Your task to perform on an android device: turn vacation reply on in the gmail app Image 0: 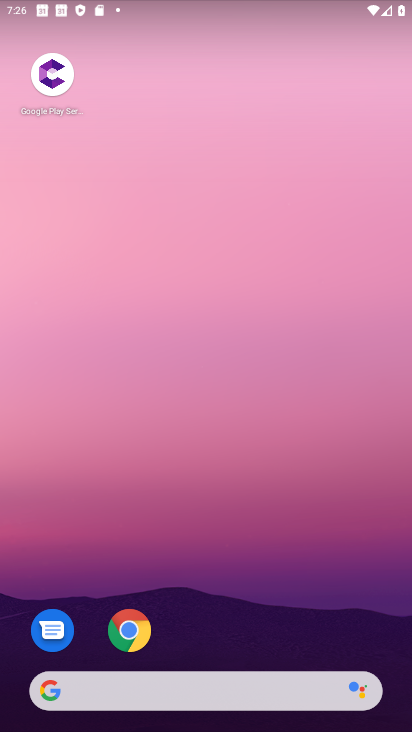
Step 0: drag from (195, 641) to (220, 186)
Your task to perform on an android device: turn vacation reply on in the gmail app Image 1: 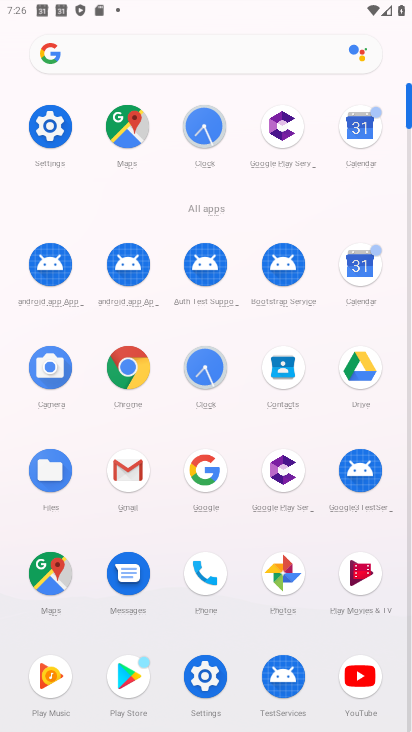
Step 1: click (122, 456)
Your task to perform on an android device: turn vacation reply on in the gmail app Image 2: 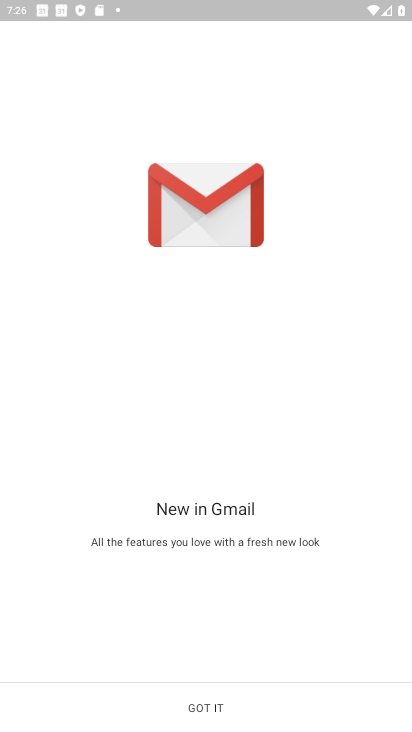
Step 2: click (195, 699)
Your task to perform on an android device: turn vacation reply on in the gmail app Image 3: 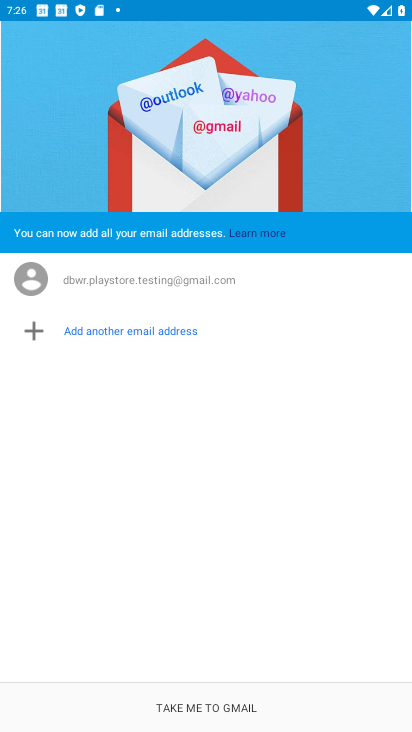
Step 3: click (246, 697)
Your task to perform on an android device: turn vacation reply on in the gmail app Image 4: 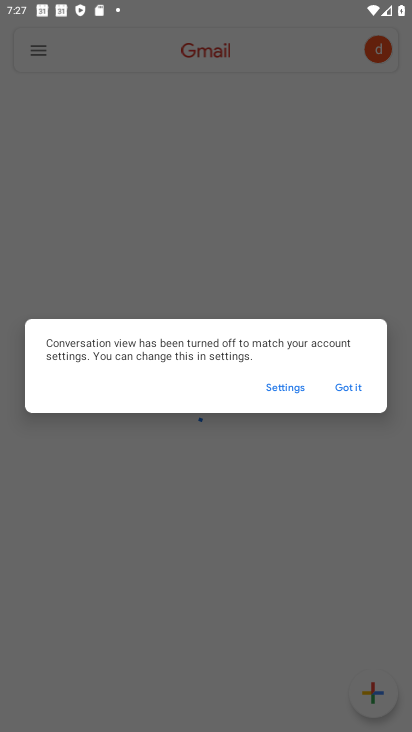
Step 4: click (334, 388)
Your task to perform on an android device: turn vacation reply on in the gmail app Image 5: 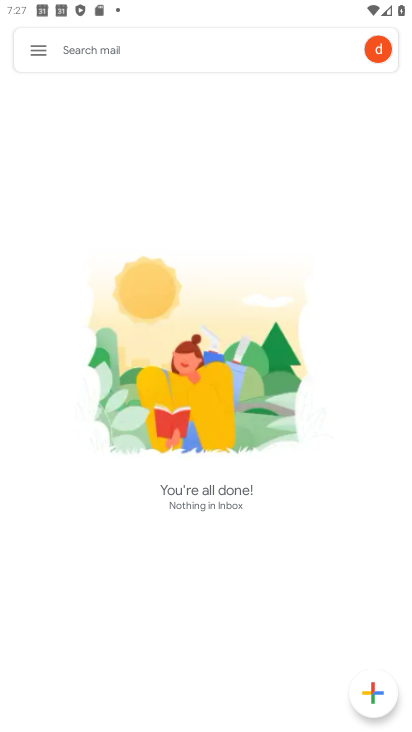
Step 5: click (41, 45)
Your task to perform on an android device: turn vacation reply on in the gmail app Image 6: 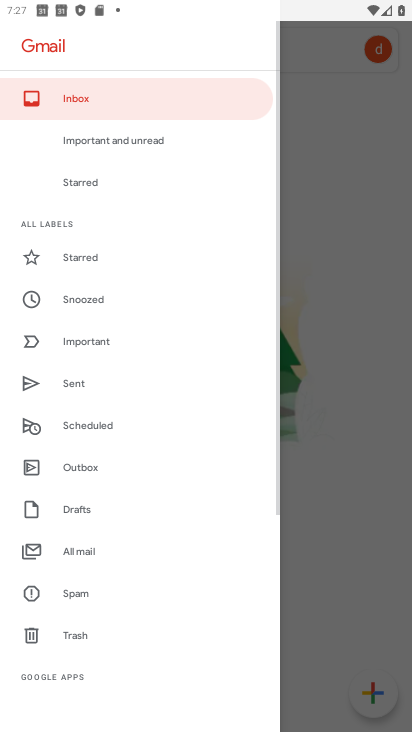
Step 6: drag from (103, 667) to (174, 201)
Your task to perform on an android device: turn vacation reply on in the gmail app Image 7: 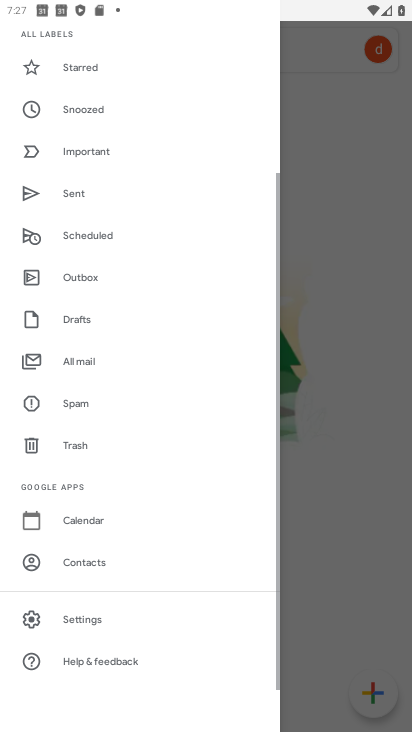
Step 7: click (68, 617)
Your task to perform on an android device: turn vacation reply on in the gmail app Image 8: 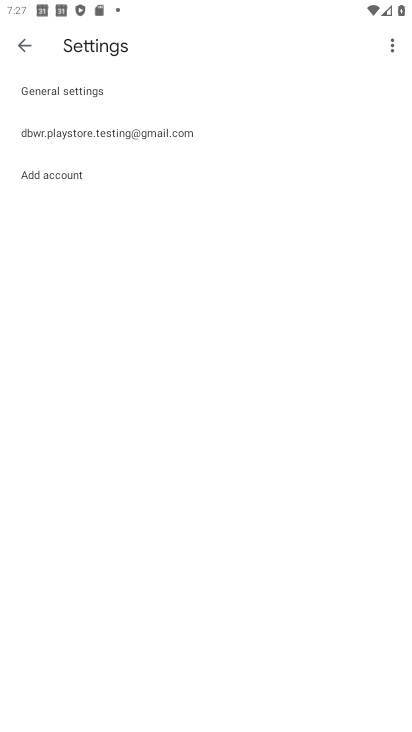
Step 8: click (58, 121)
Your task to perform on an android device: turn vacation reply on in the gmail app Image 9: 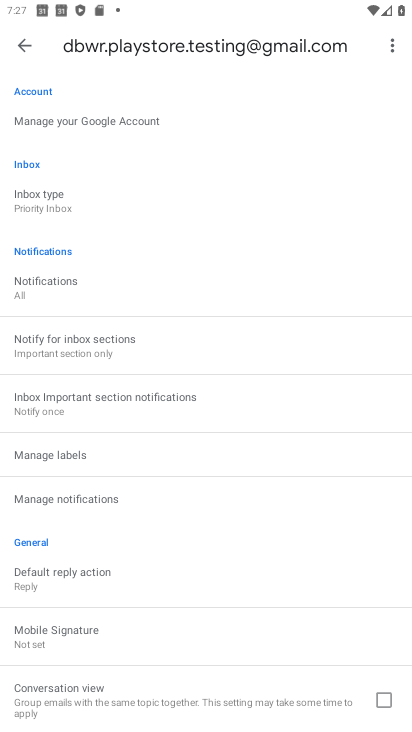
Step 9: drag from (87, 573) to (177, 232)
Your task to perform on an android device: turn vacation reply on in the gmail app Image 10: 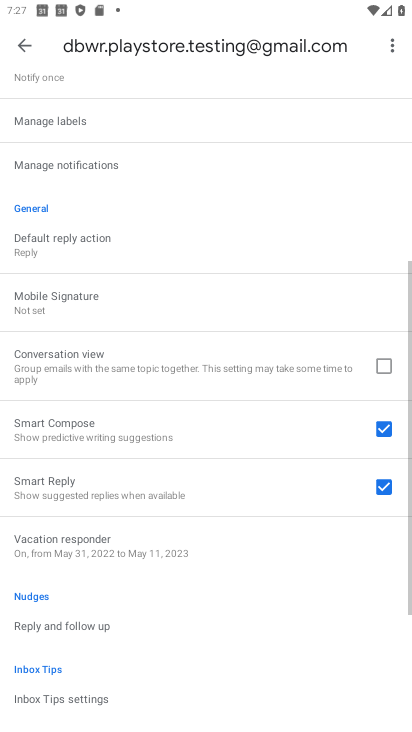
Step 10: drag from (159, 641) to (199, 476)
Your task to perform on an android device: turn vacation reply on in the gmail app Image 11: 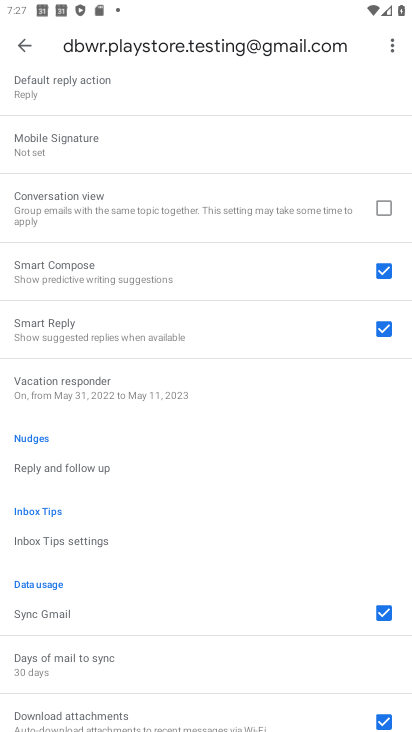
Step 11: click (96, 380)
Your task to perform on an android device: turn vacation reply on in the gmail app Image 12: 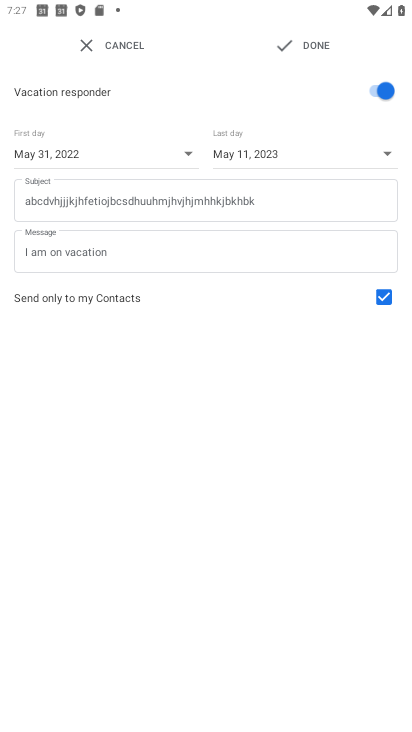
Step 12: click (281, 32)
Your task to perform on an android device: turn vacation reply on in the gmail app Image 13: 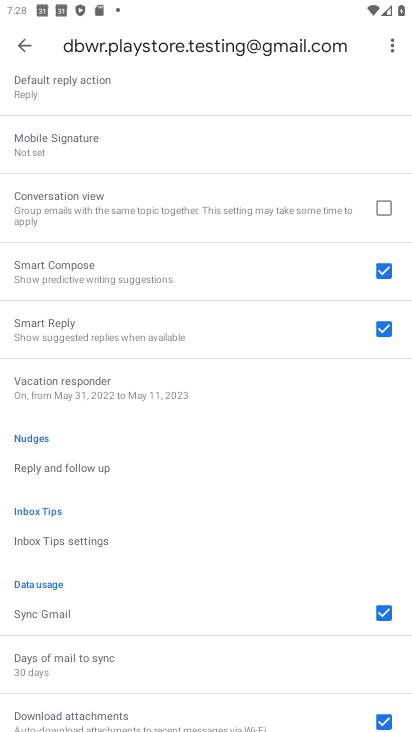
Step 13: click (123, 387)
Your task to perform on an android device: turn vacation reply on in the gmail app Image 14: 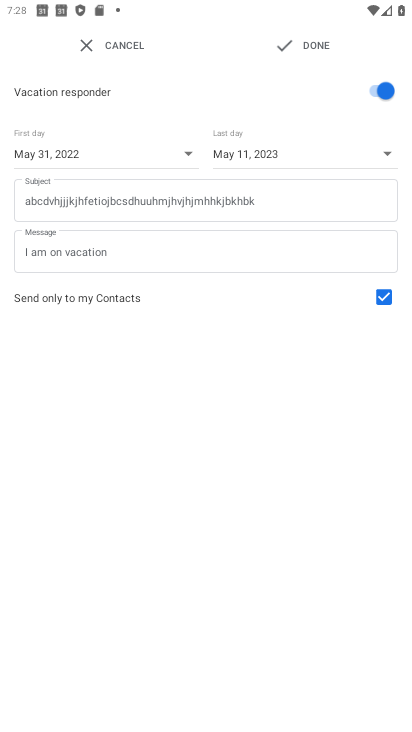
Step 14: task complete